Your task to perform on an android device: Open Yahoo.com Image 0: 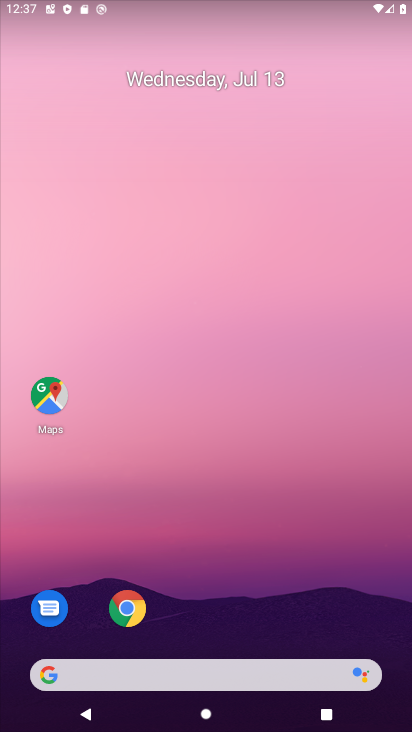
Step 0: click (127, 600)
Your task to perform on an android device: Open Yahoo.com Image 1: 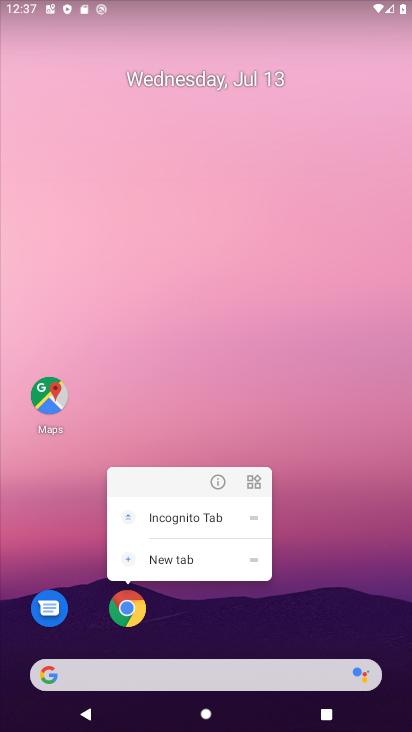
Step 1: click (123, 601)
Your task to perform on an android device: Open Yahoo.com Image 2: 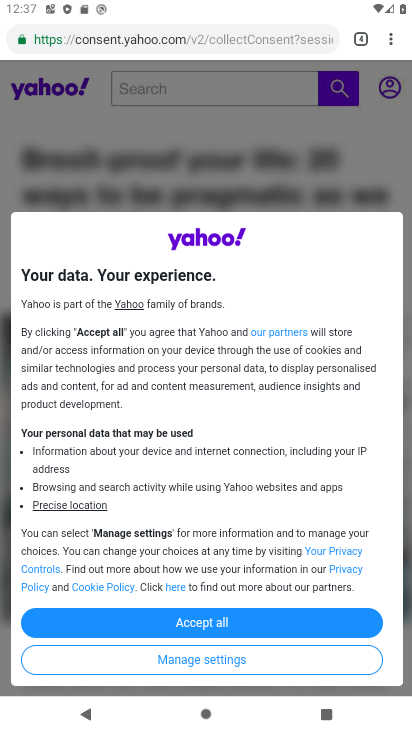
Step 2: task complete